Your task to perform on an android device: Go to CNN.com Image 0: 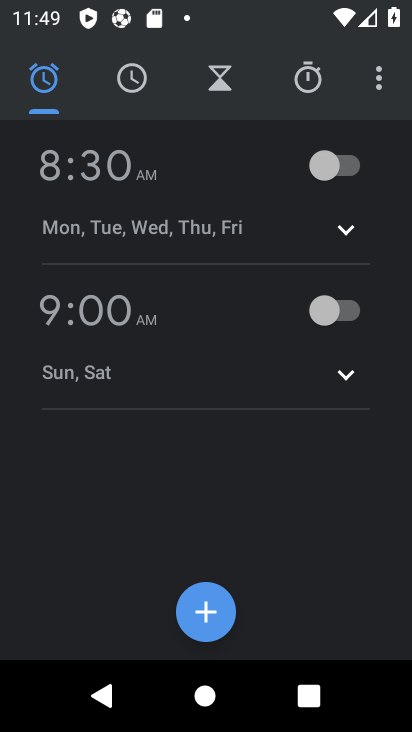
Step 0: press home button
Your task to perform on an android device: Go to CNN.com Image 1: 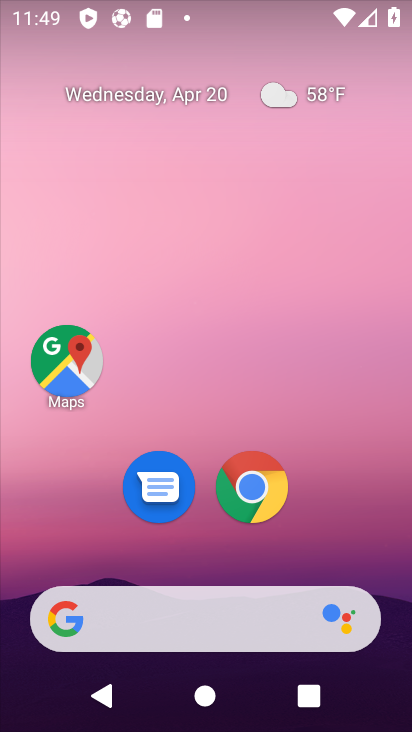
Step 1: click (249, 489)
Your task to perform on an android device: Go to CNN.com Image 2: 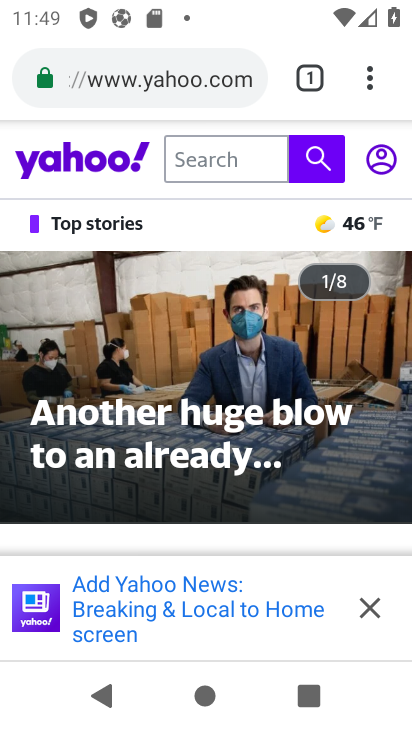
Step 2: click (197, 85)
Your task to perform on an android device: Go to CNN.com Image 3: 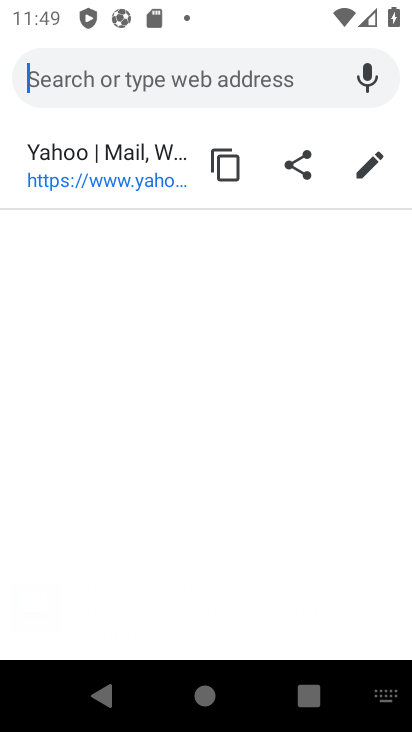
Step 3: type "cnn.com"
Your task to perform on an android device: Go to CNN.com Image 4: 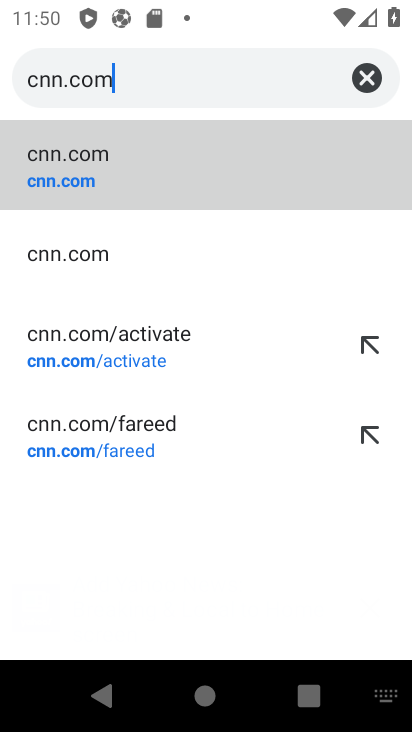
Step 4: click (41, 181)
Your task to perform on an android device: Go to CNN.com Image 5: 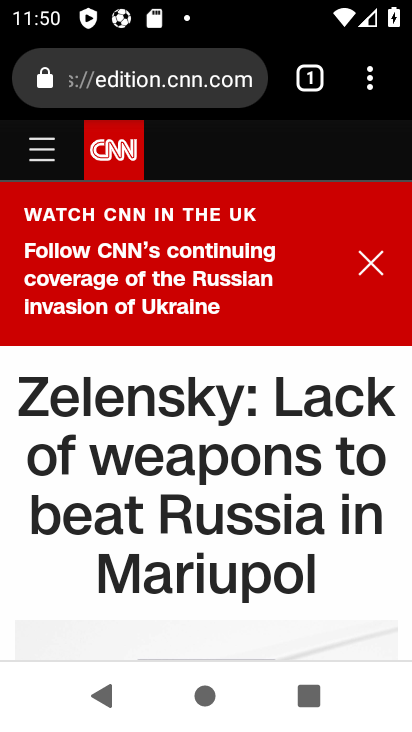
Step 5: task complete